Your task to perform on an android device: change notifications settings Image 0: 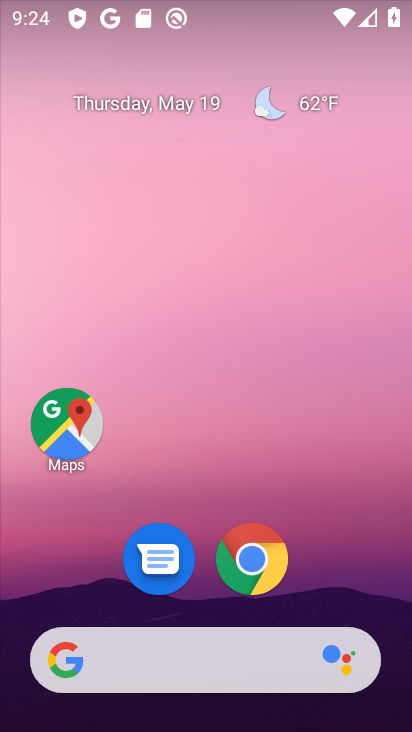
Step 0: drag from (327, 539) to (311, 142)
Your task to perform on an android device: change notifications settings Image 1: 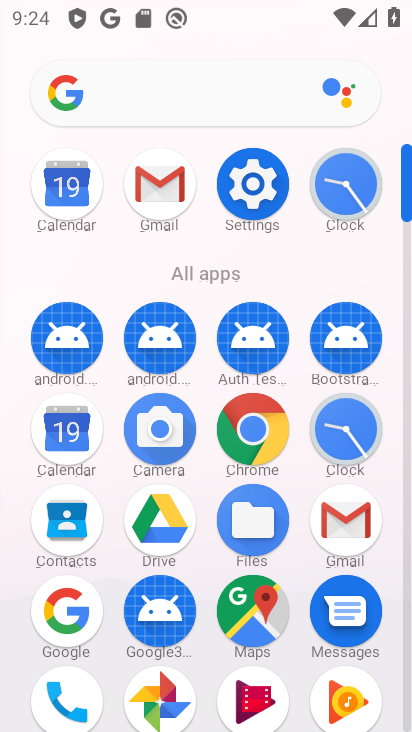
Step 1: click (213, 181)
Your task to perform on an android device: change notifications settings Image 2: 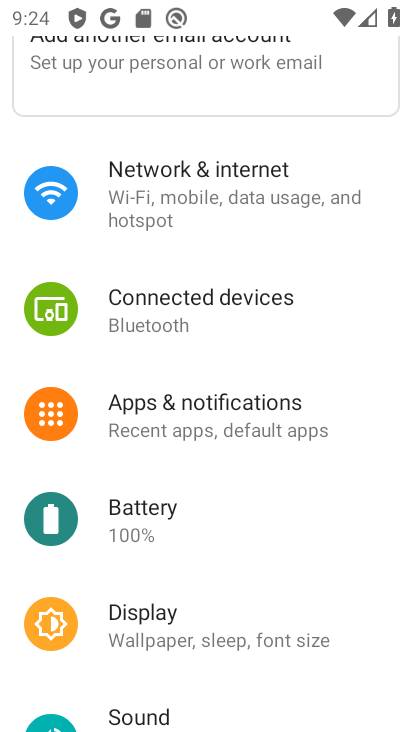
Step 2: click (227, 409)
Your task to perform on an android device: change notifications settings Image 3: 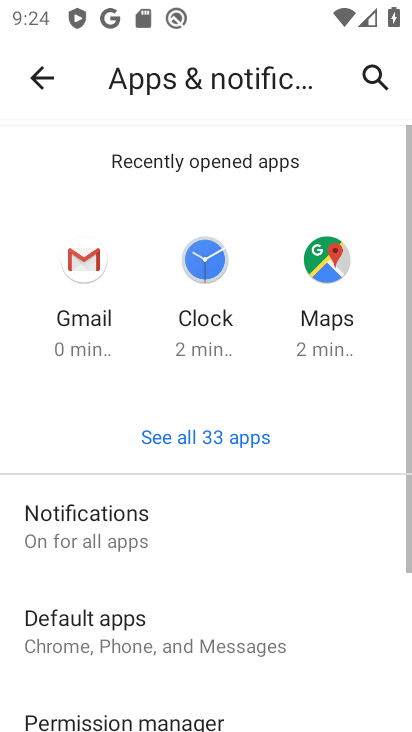
Step 3: click (209, 531)
Your task to perform on an android device: change notifications settings Image 4: 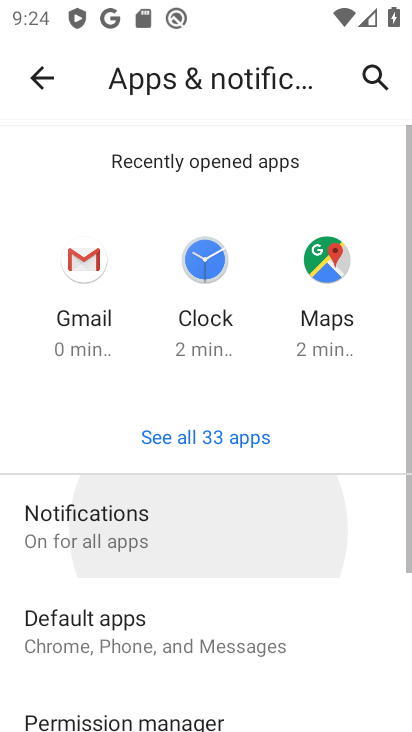
Step 4: click (209, 531)
Your task to perform on an android device: change notifications settings Image 5: 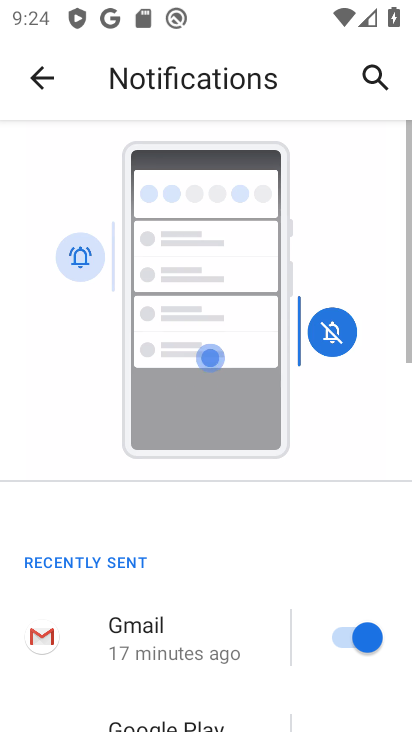
Step 5: drag from (209, 529) to (295, 2)
Your task to perform on an android device: change notifications settings Image 6: 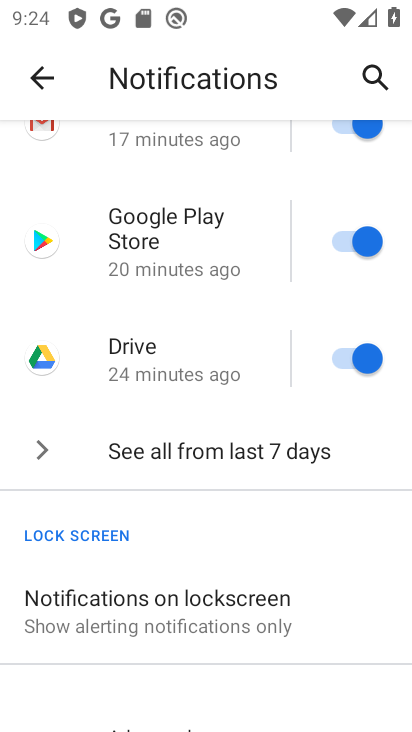
Step 6: drag from (236, 583) to (272, 176)
Your task to perform on an android device: change notifications settings Image 7: 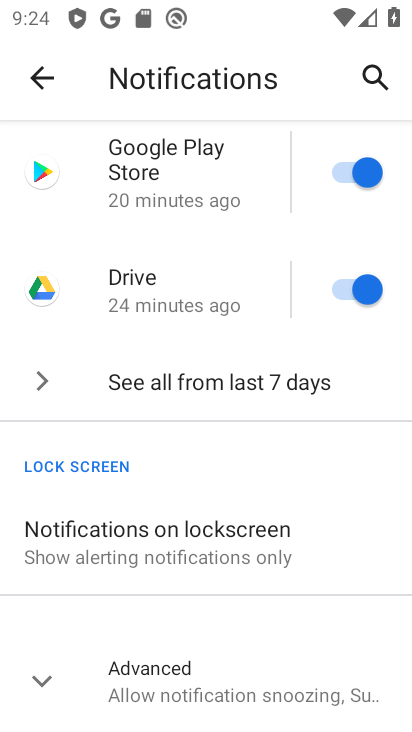
Step 7: click (175, 664)
Your task to perform on an android device: change notifications settings Image 8: 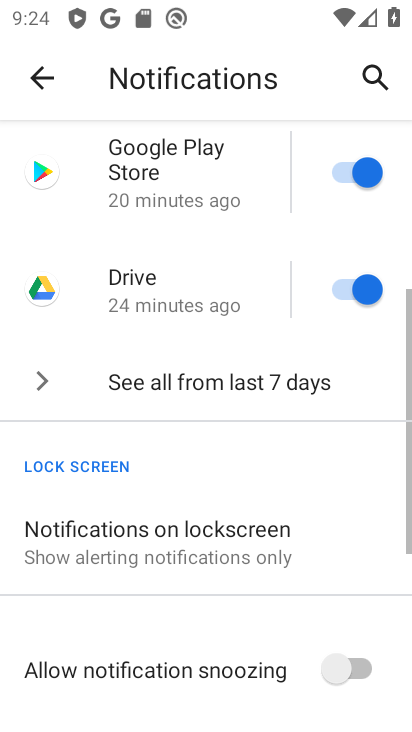
Step 8: drag from (190, 616) to (211, 313)
Your task to perform on an android device: change notifications settings Image 9: 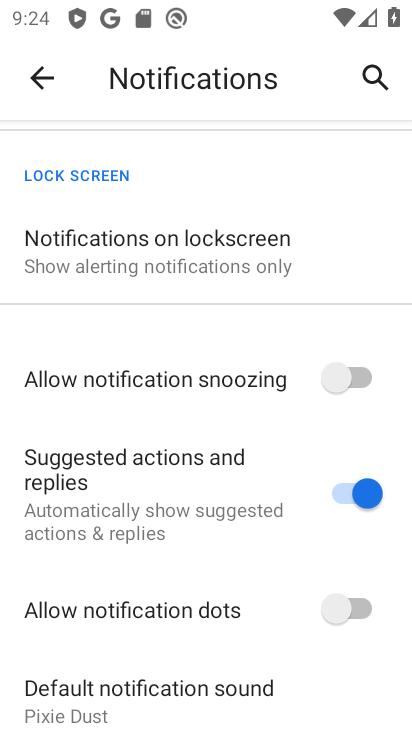
Step 9: click (369, 374)
Your task to perform on an android device: change notifications settings Image 10: 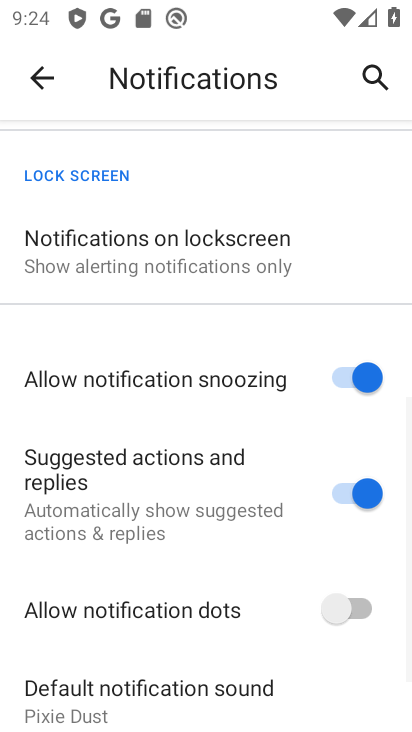
Step 10: task complete